Your task to perform on an android device: Open eBay Image 0: 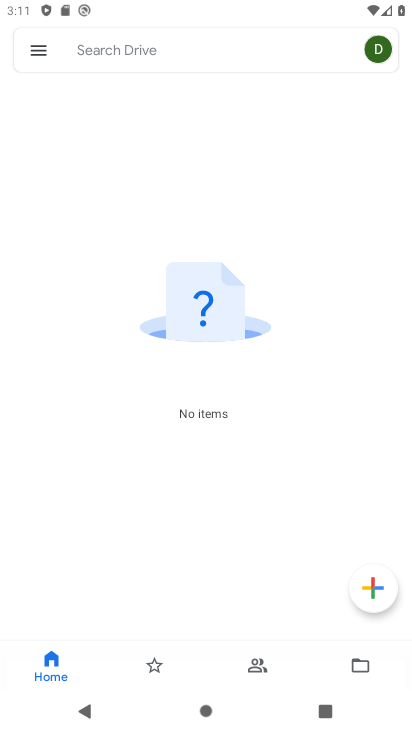
Step 0: press home button
Your task to perform on an android device: Open eBay Image 1: 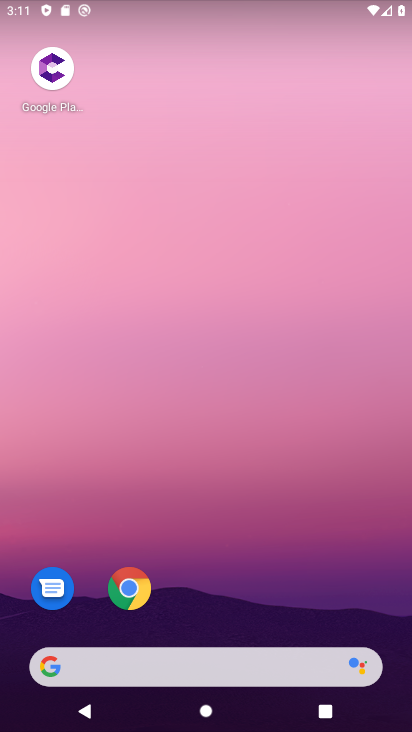
Step 1: drag from (290, 591) to (288, 93)
Your task to perform on an android device: Open eBay Image 2: 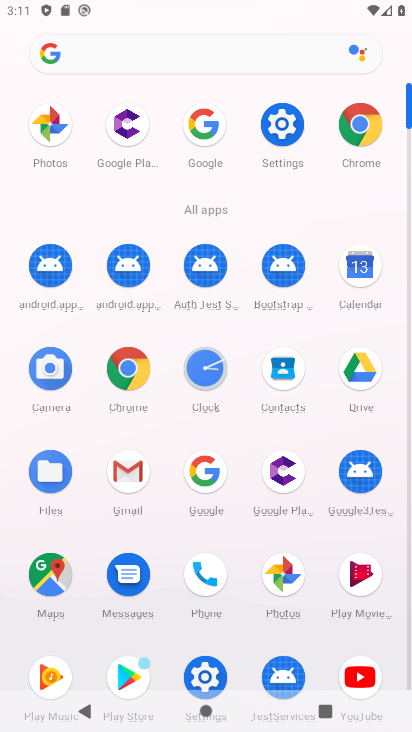
Step 2: click (121, 386)
Your task to perform on an android device: Open eBay Image 3: 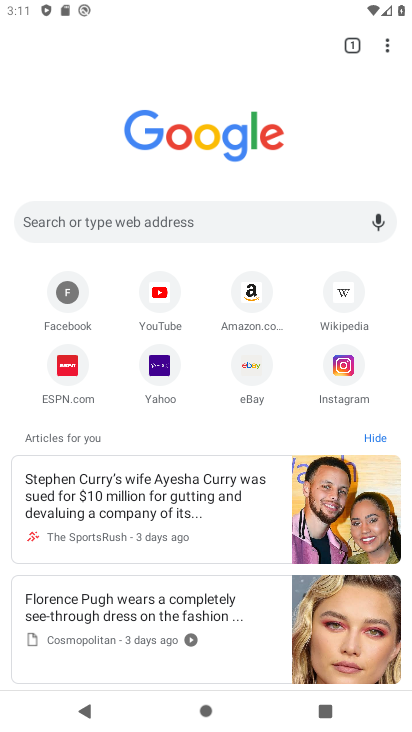
Step 3: click (241, 374)
Your task to perform on an android device: Open eBay Image 4: 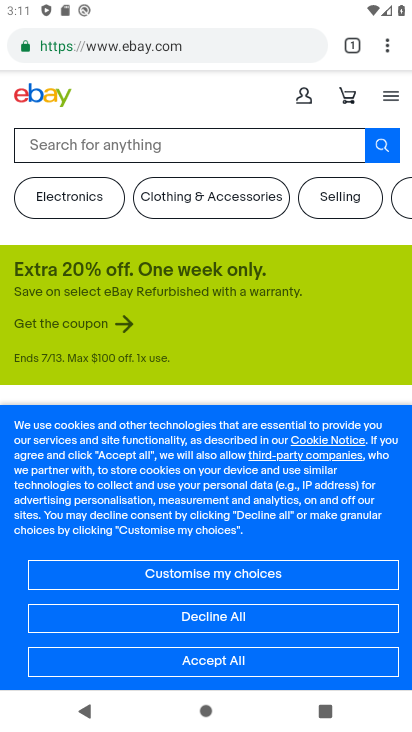
Step 4: task complete